Your task to perform on an android device: check the backup settings in the google photos Image 0: 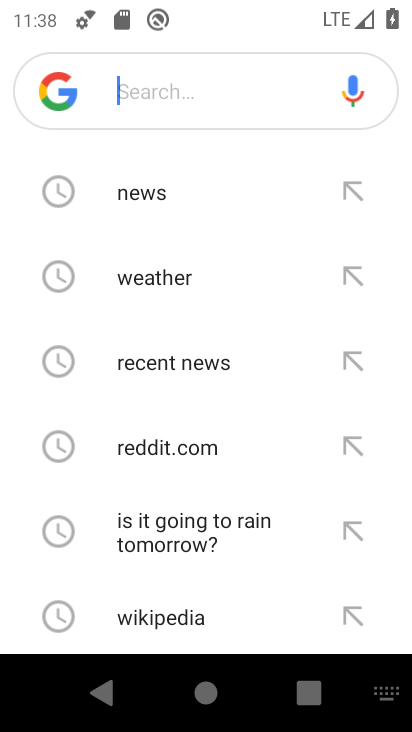
Step 0: press home button
Your task to perform on an android device: check the backup settings in the google photos Image 1: 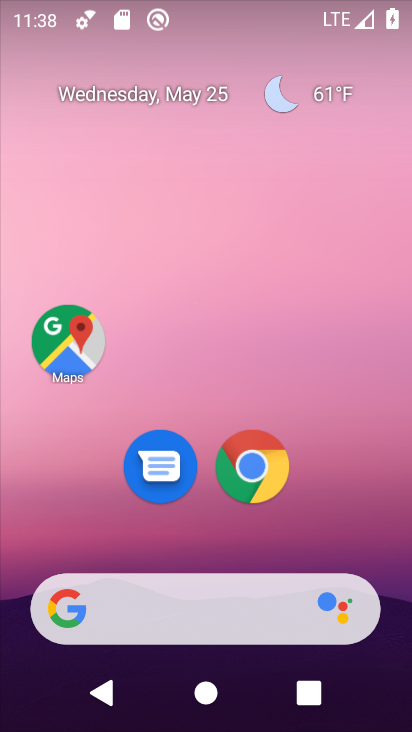
Step 1: drag from (198, 558) to (246, 35)
Your task to perform on an android device: check the backup settings in the google photos Image 2: 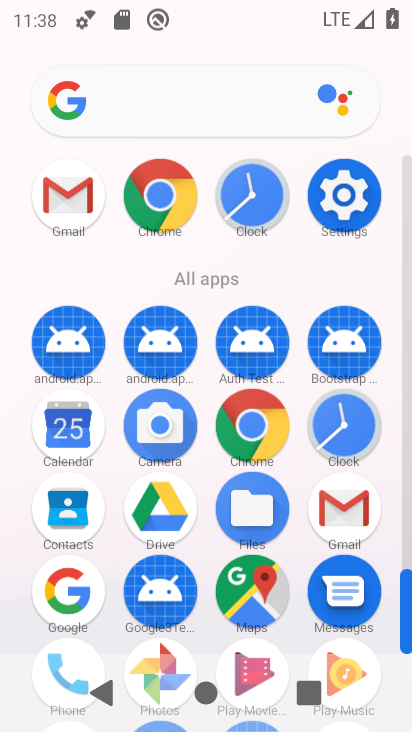
Step 2: drag from (202, 625) to (203, 397)
Your task to perform on an android device: check the backup settings in the google photos Image 3: 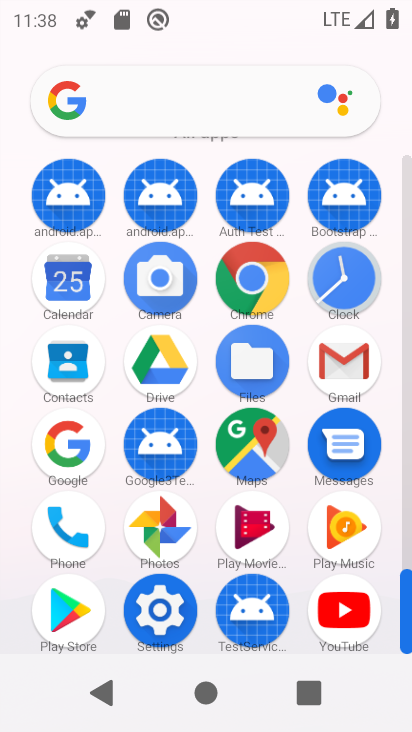
Step 3: click (175, 499)
Your task to perform on an android device: check the backup settings in the google photos Image 4: 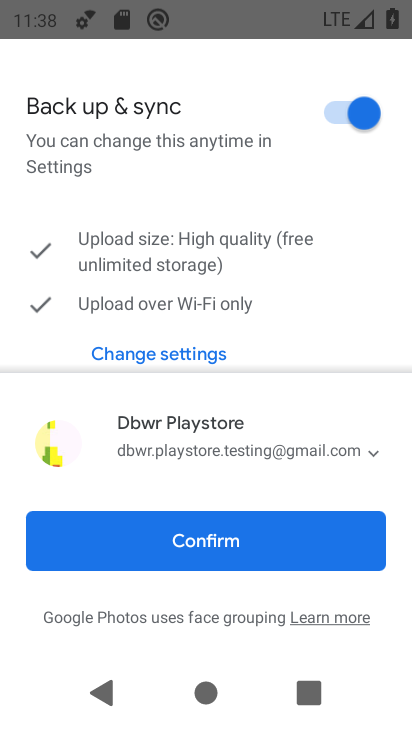
Step 4: click (239, 546)
Your task to perform on an android device: check the backup settings in the google photos Image 5: 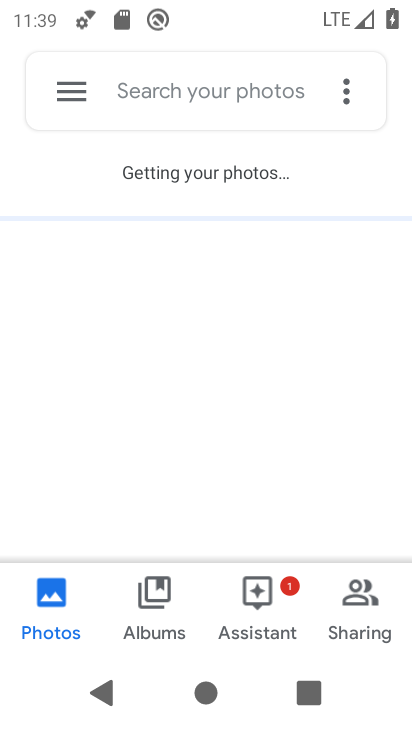
Step 5: click (71, 94)
Your task to perform on an android device: check the backup settings in the google photos Image 6: 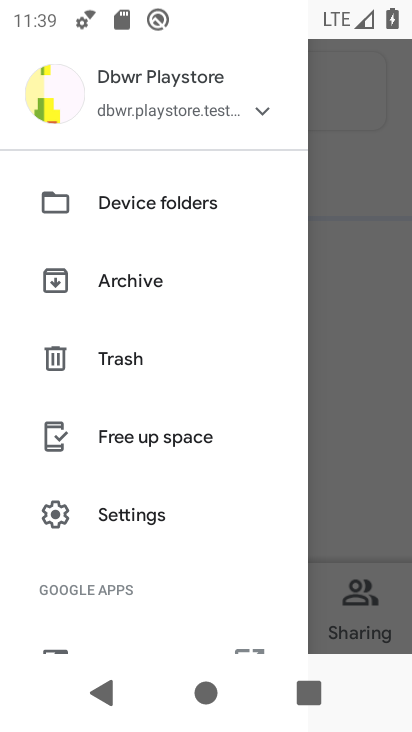
Step 6: click (128, 526)
Your task to perform on an android device: check the backup settings in the google photos Image 7: 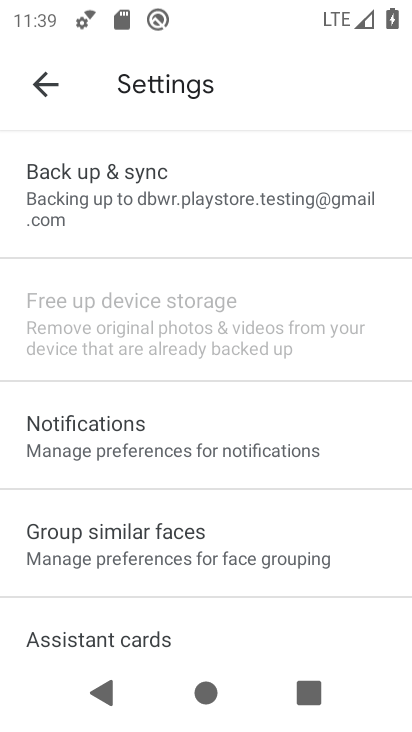
Step 7: click (140, 178)
Your task to perform on an android device: check the backup settings in the google photos Image 8: 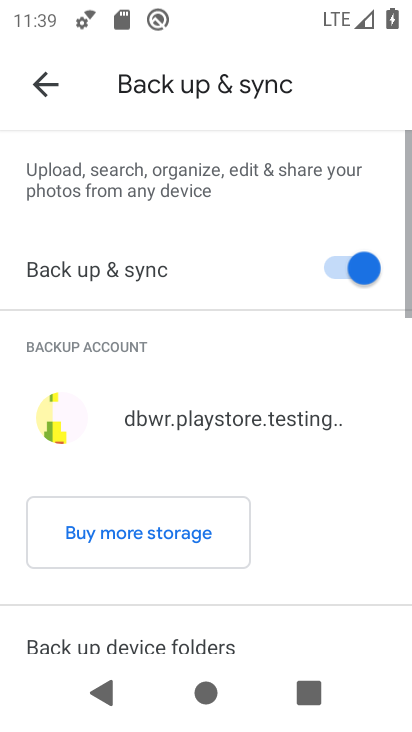
Step 8: task complete